Your task to perform on an android device: Go to accessibility settings Image 0: 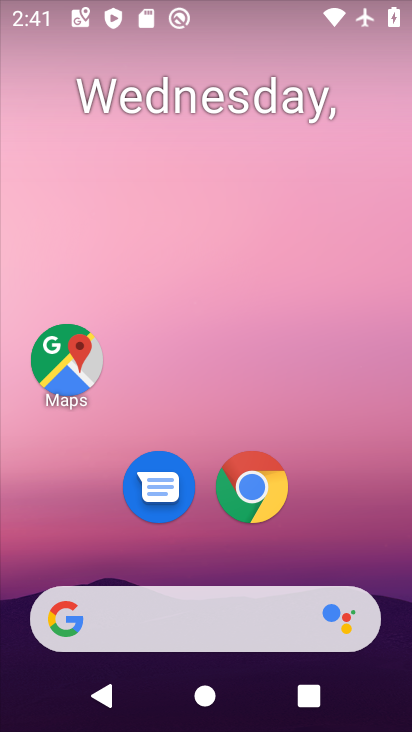
Step 0: drag from (360, 497) to (385, 89)
Your task to perform on an android device: Go to accessibility settings Image 1: 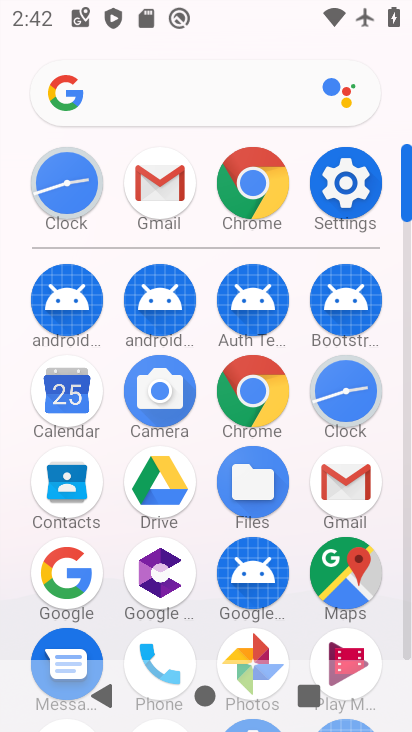
Step 1: click (346, 194)
Your task to perform on an android device: Go to accessibility settings Image 2: 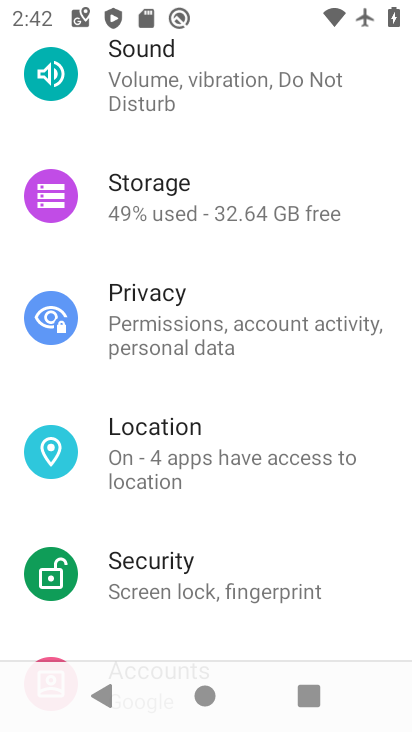
Step 2: drag from (222, 539) to (251, 147)
Your task to perform on an android device: Go to accessibility settings Image 3: 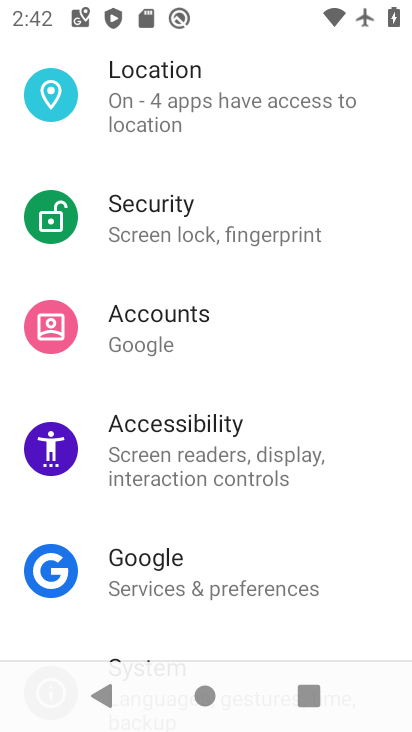
Step 3: click (160, 422)
Your task to perform on an android device: Go to accessibility settings Image 4: 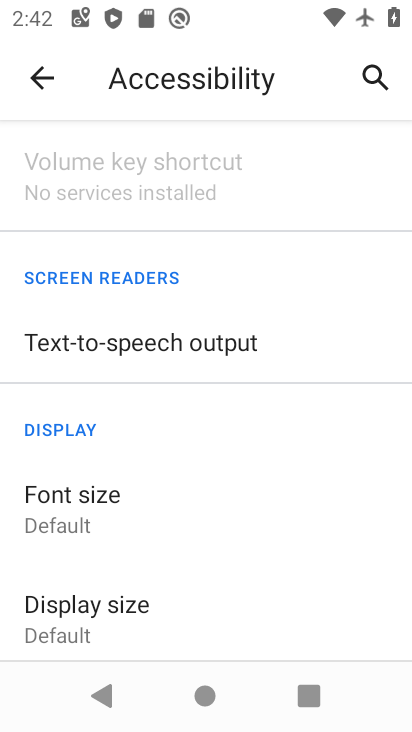
Step 4: task complete